Your task to perform on an android device: read, delete, or share a saved page in the chrome app Image 0: 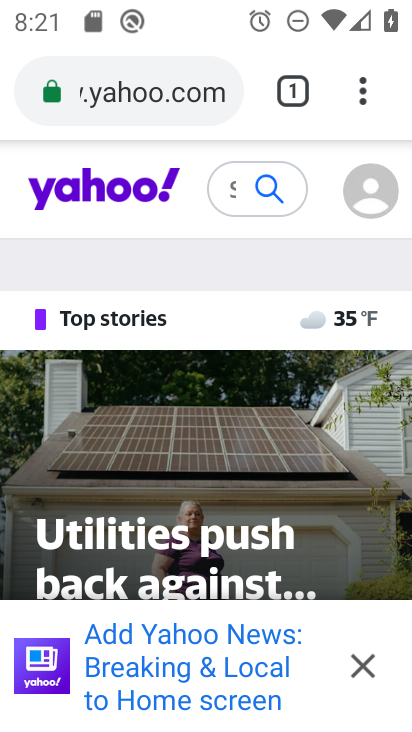
Step 0: press home button
Your task to perform on an android device: read, delete, or share a saved page in the chrome app Image 1: 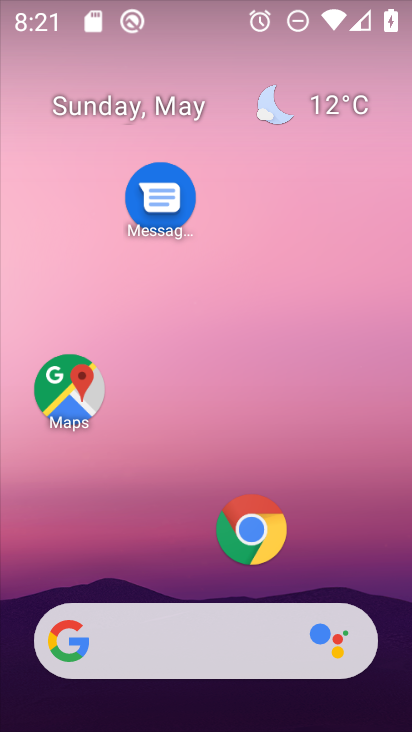
Step 1: click (246, 522)
Your task to perform on an android device: read, delete, or share a saved page in the chrome app Image 2: 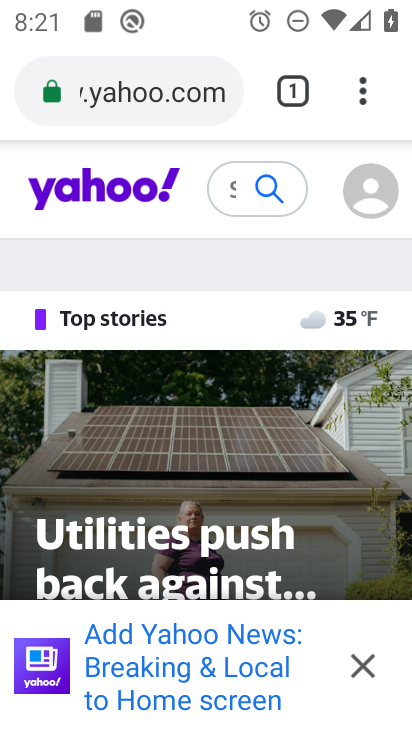
Step 2: click (359, 92)
Your task to perform on an android device: read, delete, or share a saved page in the chrome app Image 3: 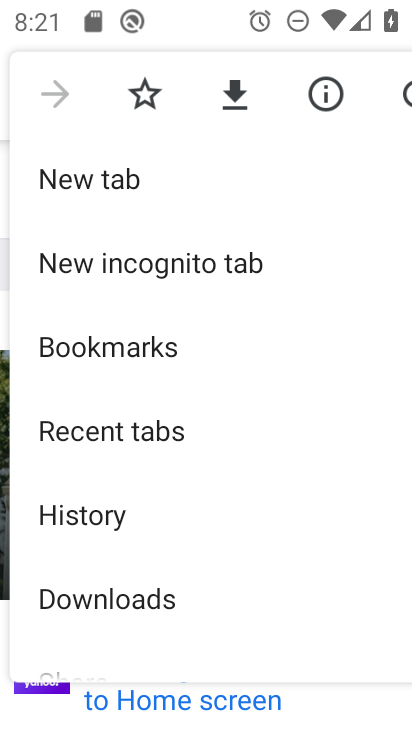
Step 3: click (190, 596)
Your task to perform on an android device: read, delete, or share a saved page in the chrome app Image 4: 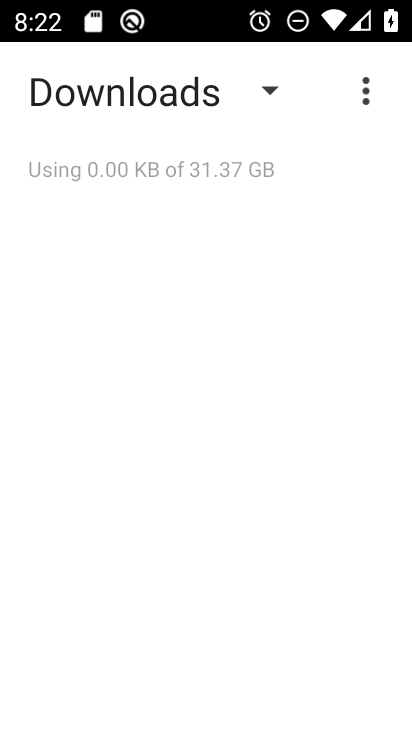
Step 4: click (366, 92)
Your task to perform on an android device: read, delete, or share a saved page in the chrome app Image 5: 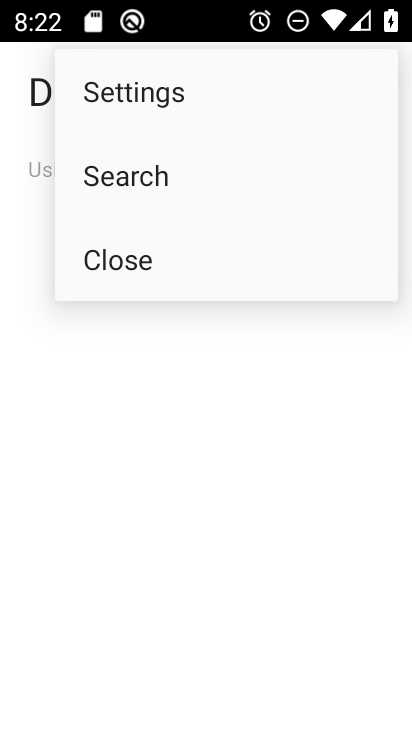
Step 5: click (184, 89)
Your task to perform on an android device: read, delete, or share a saved page in the chrome app Image 6: 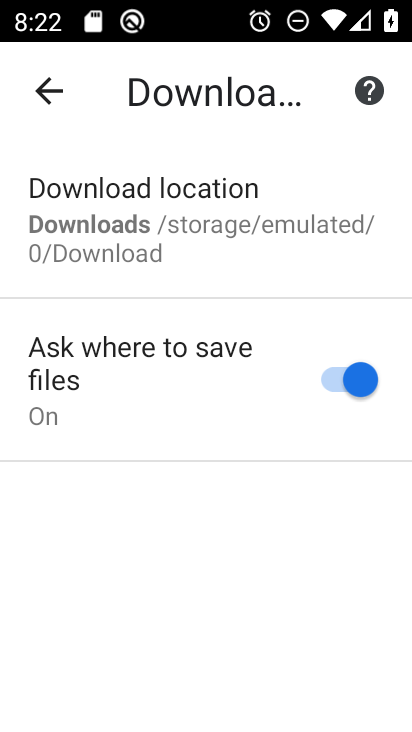
Step 6: task complete